Your task to perform on an android device: Go to privacy settings Image 0: 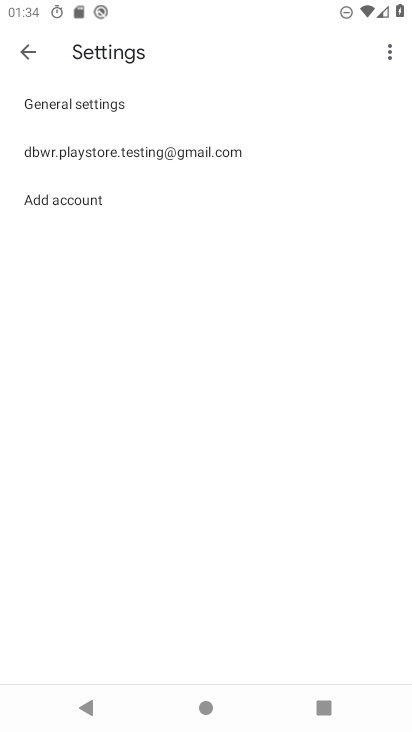
Step 0: press home button
Your task to perform on an android device: Go to privacy settings Image 1: 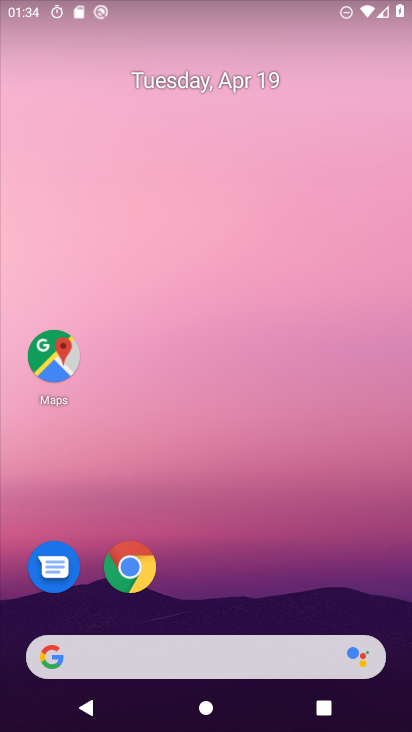
Step 1: drag from (228, 553) to (253, 113)
Your task to perform on an android device: Go to privacy settings Image 2: 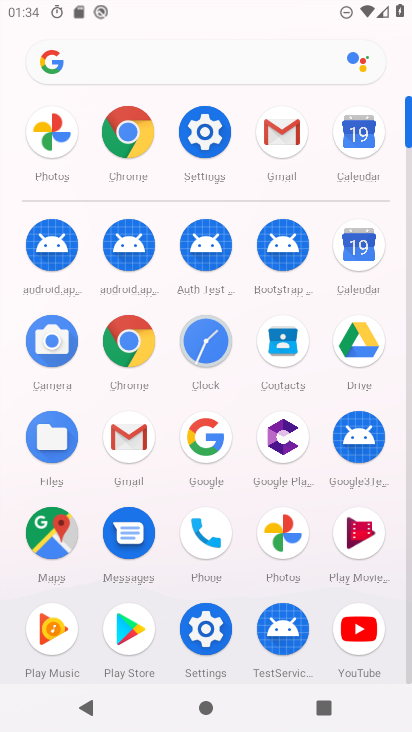
Step 2: click (211, 622)
Your task to perform on an android device: Go to privacy settings Image 3: 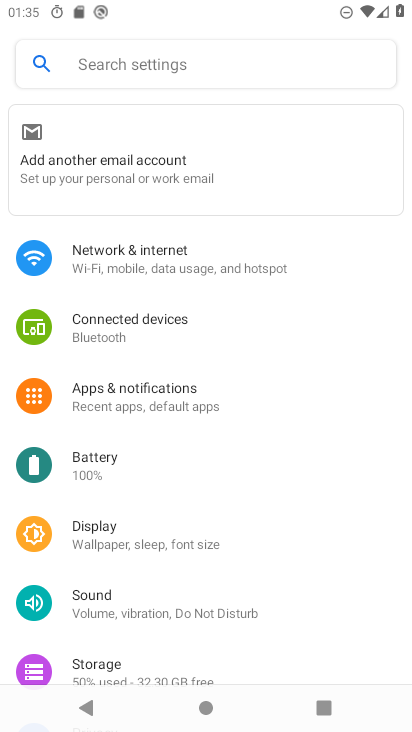
Step 3: drag from (264, 560) to (213, 100)
Your task to perform on an android device: Go to privacy settings Image 4: 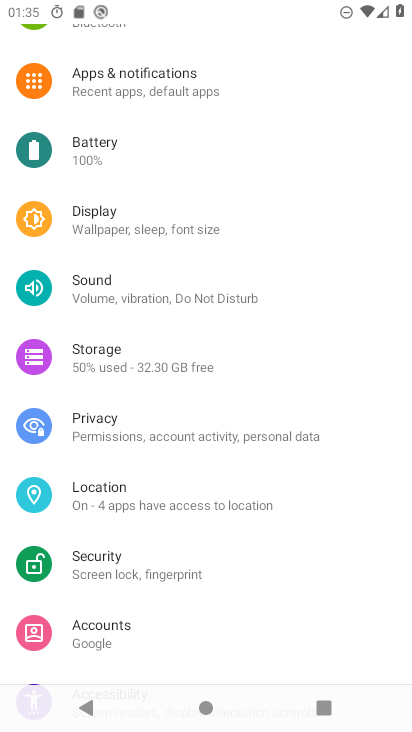
Step 4: click (112, 434)
Your task to perform on an android device: Go to privacy settings Image 5: 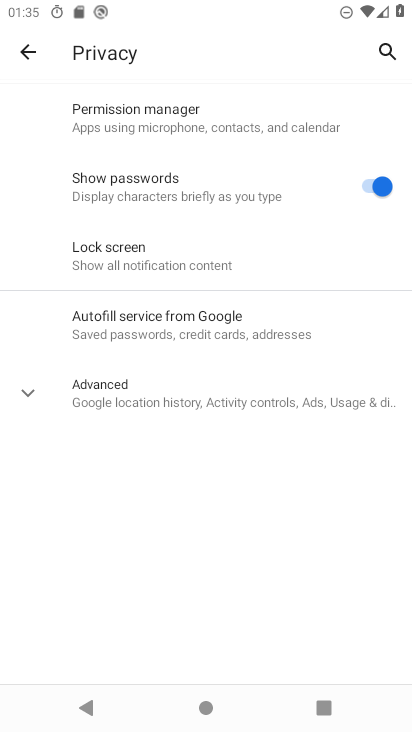
Step 5: task complete